Your task to perform on an android device: What is the recent news? Image 0: 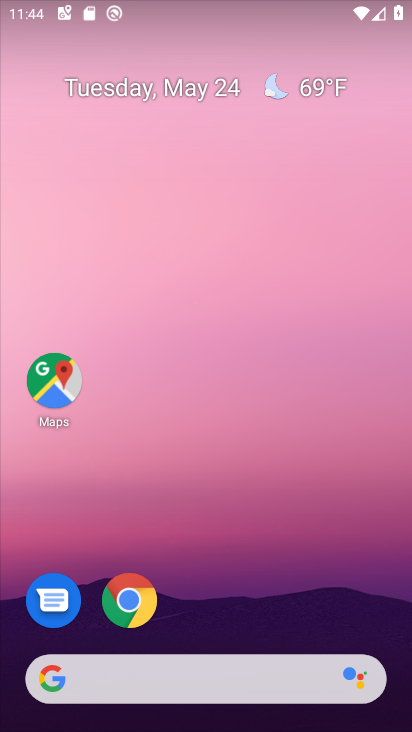
Step 0: drag from (0, 260) to (390, 355)
Your task to perform on an android device: What is the recent news? Image 1: 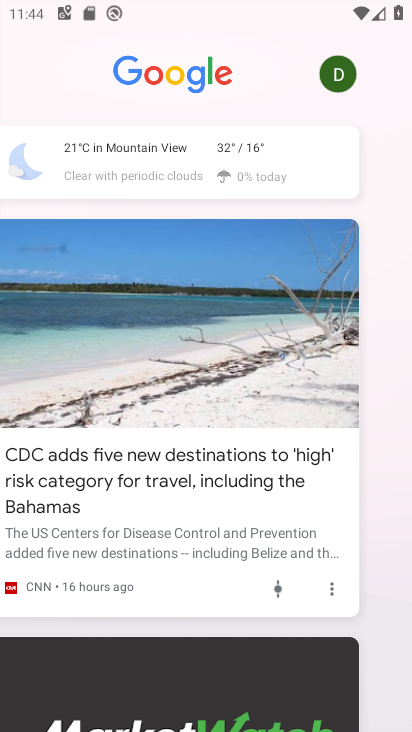
Step 1: task complete